Your task to perform on an android device: Open notification settings Image 0: 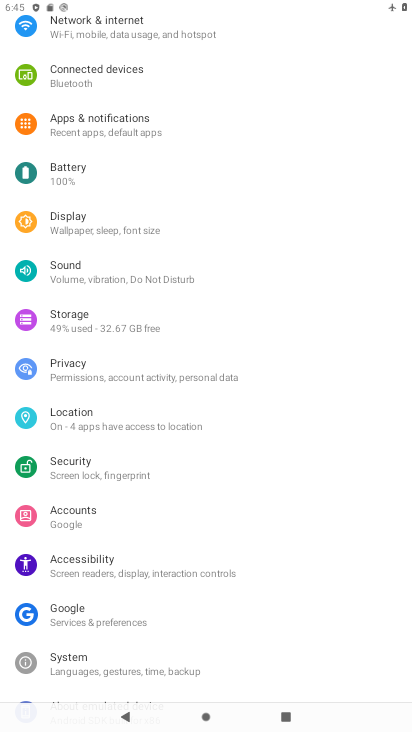
Step 0: click (77, 117)
Your task to perform on an android device: Open notification settings Image 1: 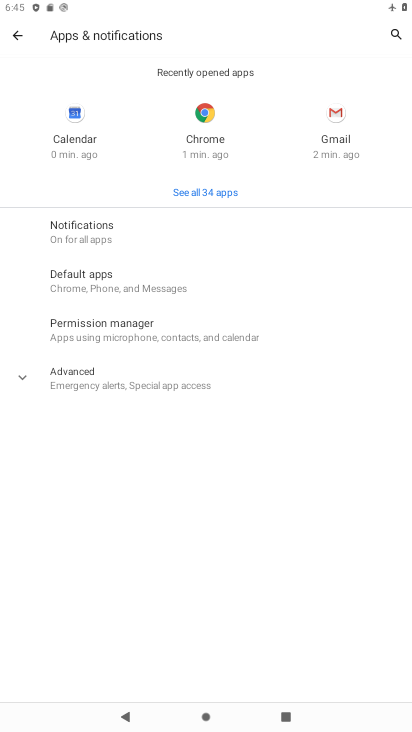
Step 1: task complete